Your task to perform on an android device: open the mobile data screen to see how much data has been used Image 0: 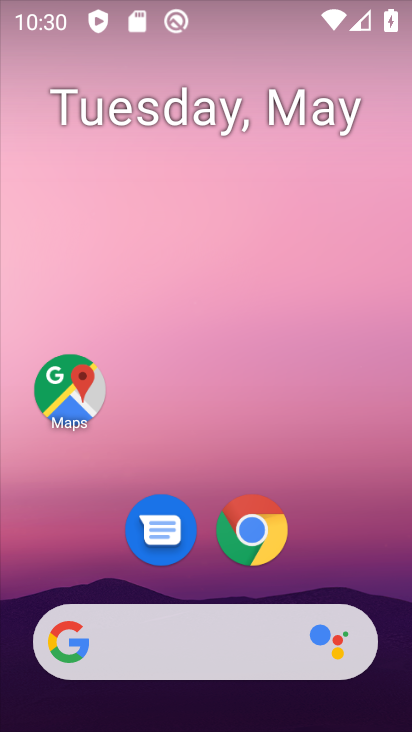
Step 0: press back button
Your task to perform on an android device: open the mobile data screen to see how much data has been used Image 1: 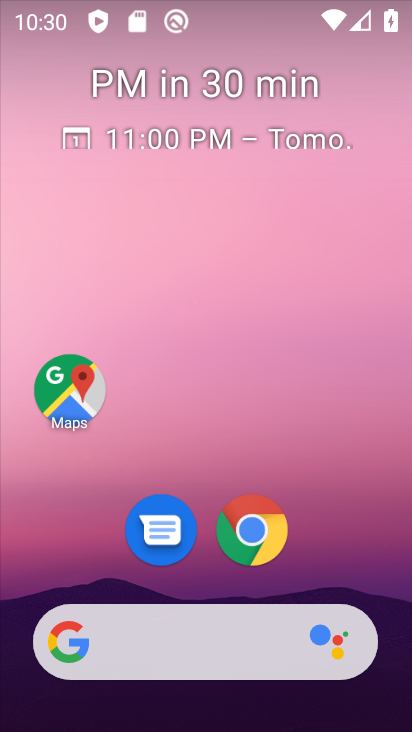
Step 1: drag from (389, 620) to (100, 26)
Your task to perform on an android device: open the mobile data screen to see how much data has been used Image 2: 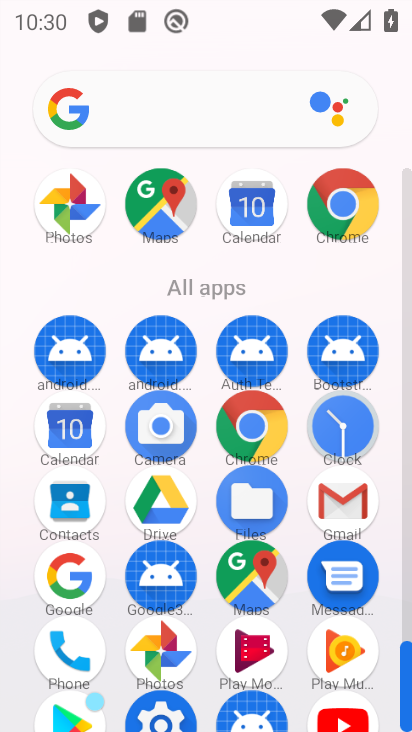
Step 2: drag from (303, 453) to (229, 147)
Your task to perform on an android device: open the mobile data screen to see how much data has been used Image 3: 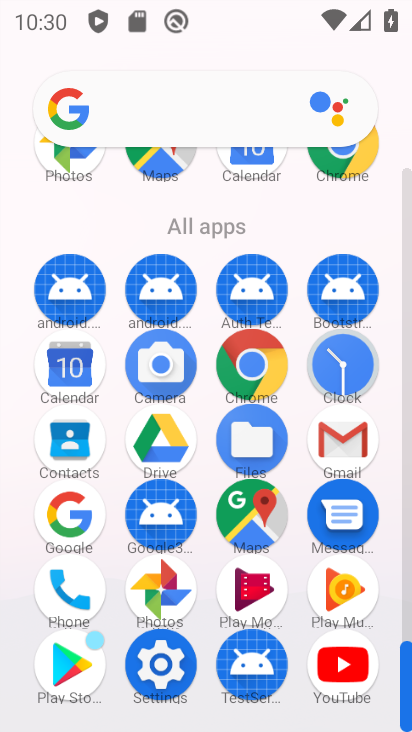
Step 3: drag from (274, 435) to (284, 256)
Your task to perform on an android device: open the mobile data screen to see how much data has been used Image 4: 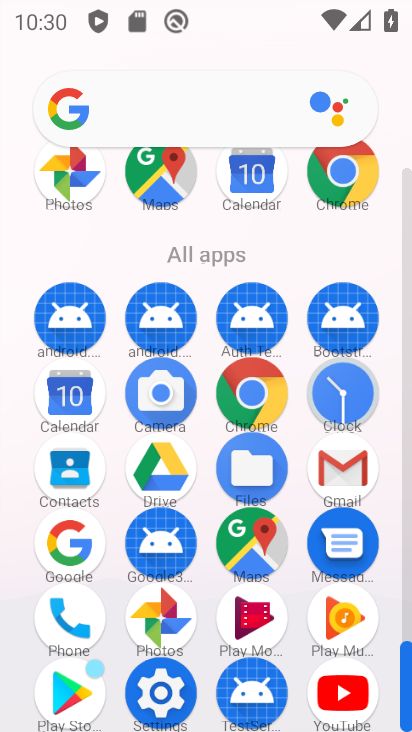
Step 4: click (165, 665)
Your task to perform on an android device: open the mobile data screen to see how much data has been used Image 5: 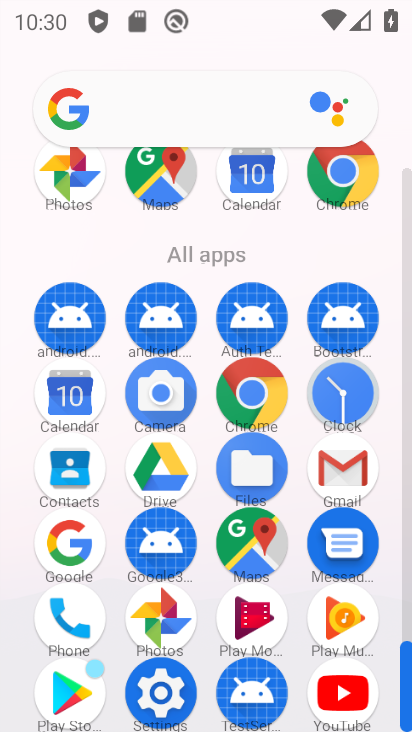
Step 5: click (160, 681)
Your task to perform on an android device: open the mobile data screen to see how much data has been used Image 6: 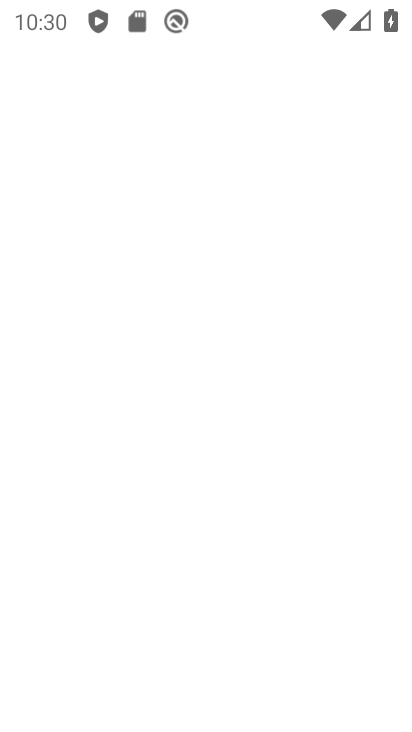
Step 6: click (160, 684)
Your task to perform on an android device: open the mobile data screen to see how much data has been used Image 7: 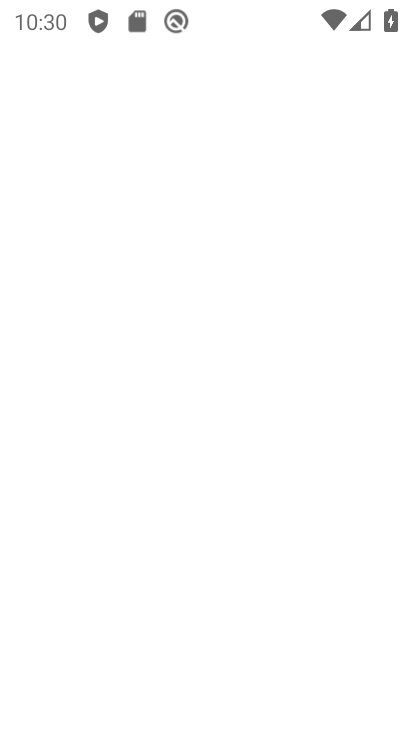
Step 7: click (161, 686)
Your task to perform on an android device: open the mobile data screen to see how much data has been used Image 8: 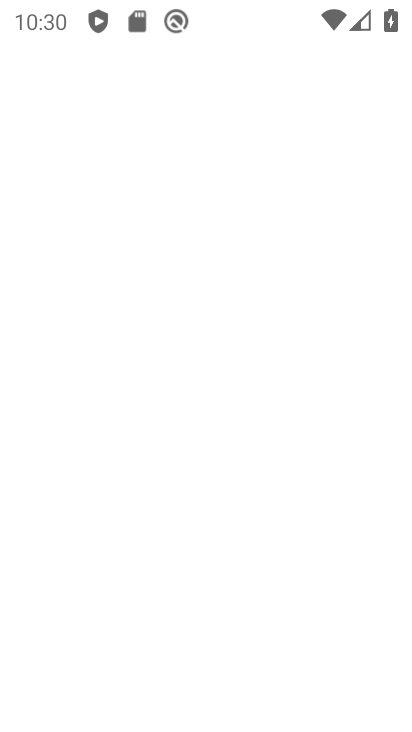
Step 8: click (161, 687)
Your task to perform on an android device: open the mobile data screen to see how much data has been used Image 9: 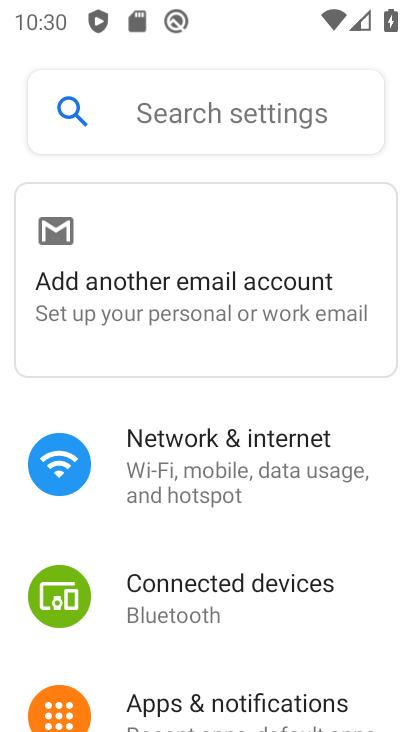
Step 9: click (207, 471)
Your task to perform on an android device: open the mobile data screen to see how much data has been used Image 10: 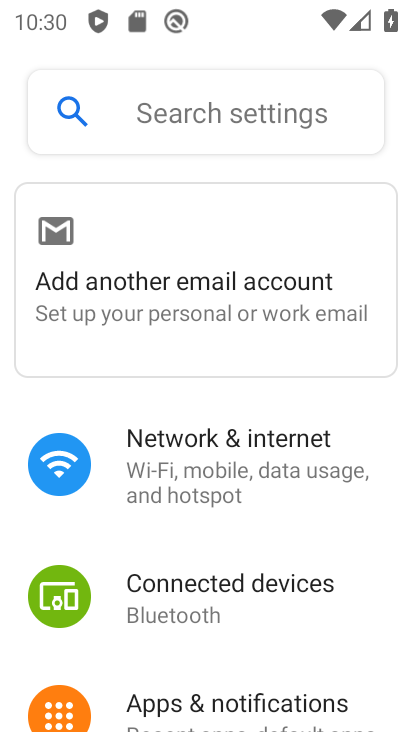
Step 10: click (207, 471)
Your task to perform on an android device: open the mobile data screen to see how much data has been used Image 11: 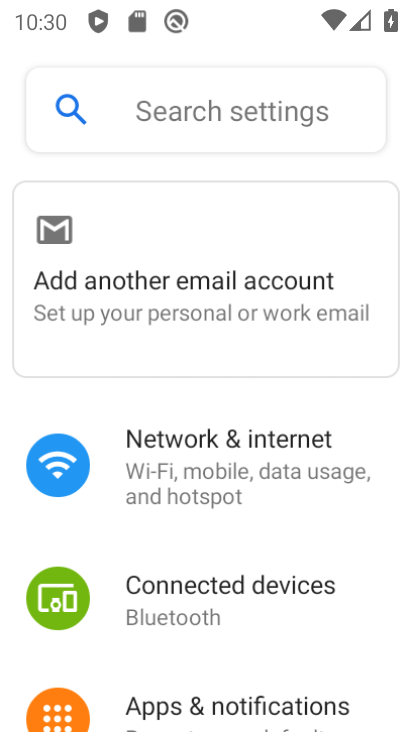
Step 11: click (207, 471)
Your task to perform on an android device: open the mobile data screen to see how much data has been used Image 12: 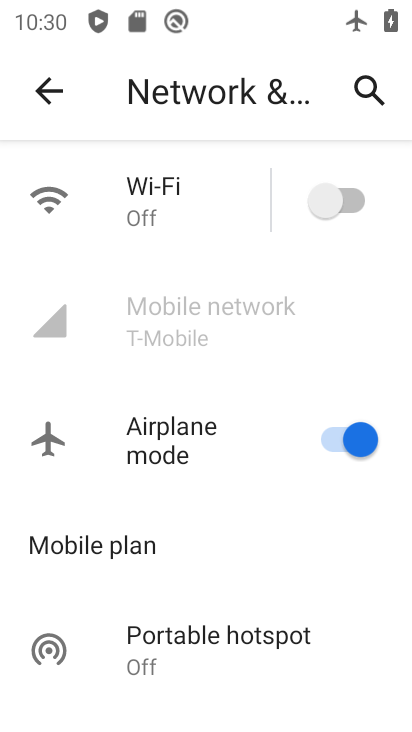
Step 12: click (328, 194)
Your task to perform on an android device: open the mobile data screen to see how much data has been used Image 13: 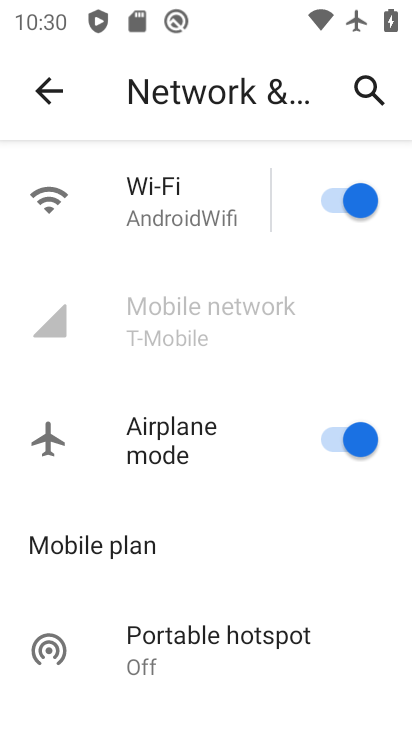
Step 13: task complete